Your task to perform on an android device: change notification settings in the gmail app Image 0: 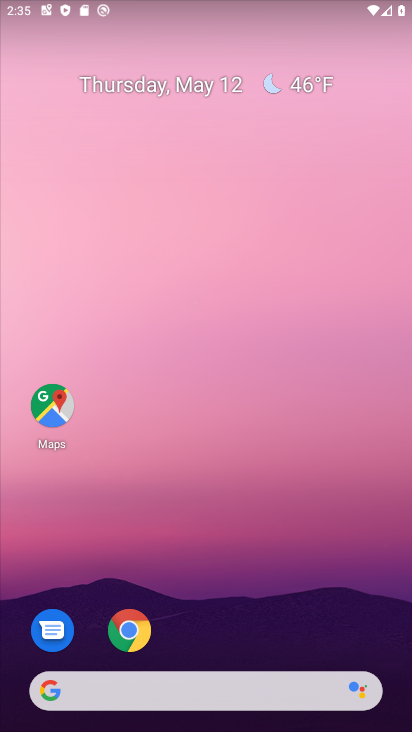
Step 0: drag from (253, 623) to (205, 119)
Your task to perform on an android device: change notification settings in the gmail app Image 1: 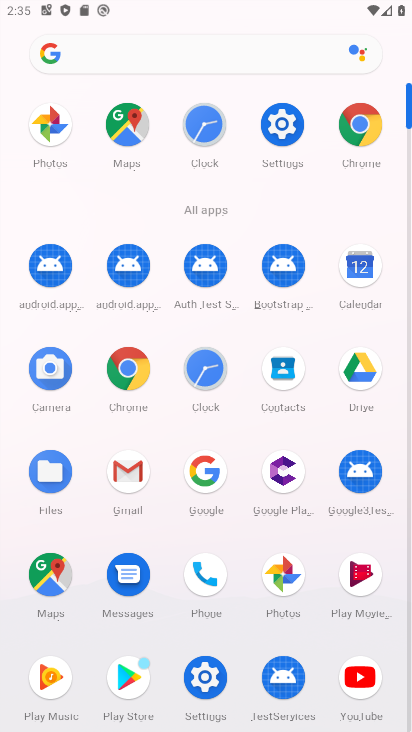
Step 1: click (126, 471)
Your task to perform on an android device: change notification settings in the gmail app Image 2: 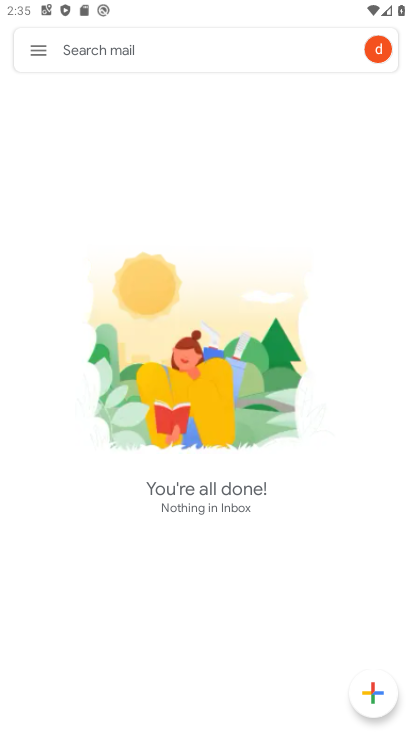
Step 2: click (46, 51)
Your task to perform on an android device: change notification settings in the gmail app Image 3: 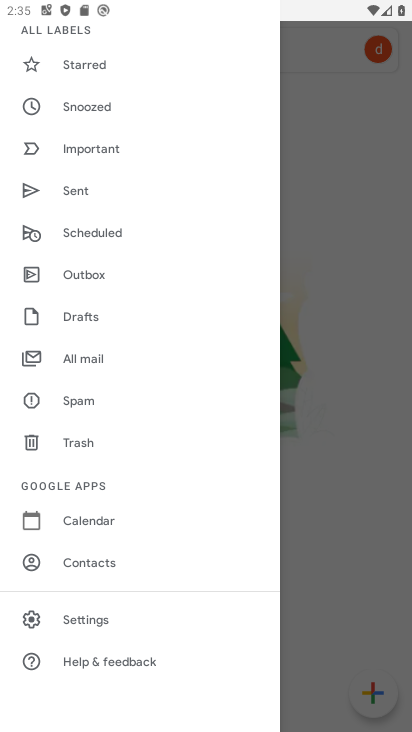
Step 3: click (80, 616)
Your task to perform on an android device: change notification settings in the gmail app Image 4: 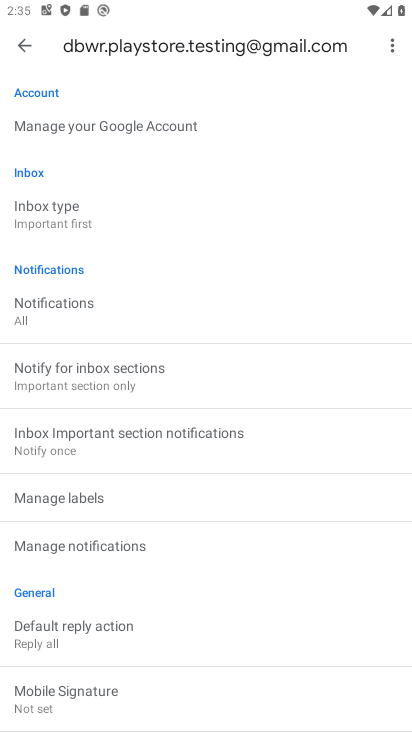
Step 4: click (81, 549)
Your task to perform on an android device: change notification settings in the gmail app Image 5: 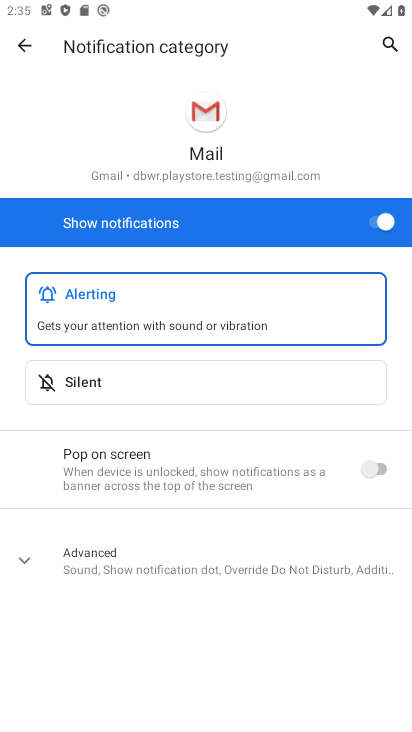
Step 5: click (382, 226)
Your task to perform on an android device: change notification settings in the gmail app Image 6: 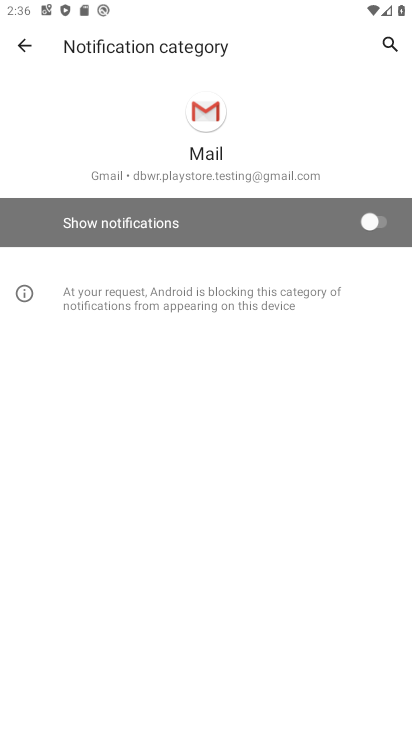
Step 6: task complete